Your task to perform on an android device: read, delete, or share a saved page in the chrome app Image 0: 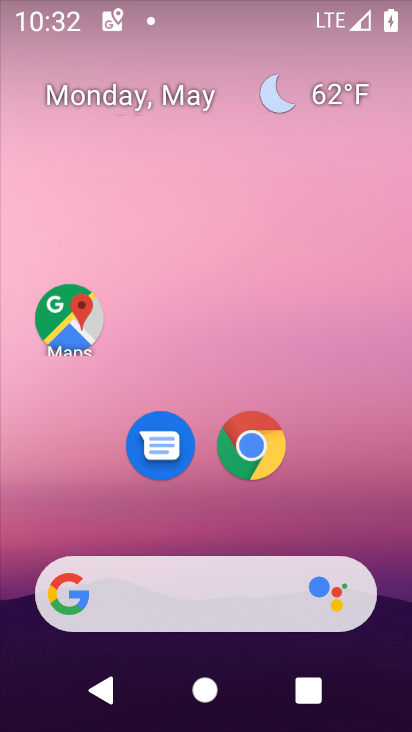
Step 0: drag from (398, 637) to (249, 2)
Your task to perform on an android device: read, delete, or share a saved page in the chrome app Image 1: 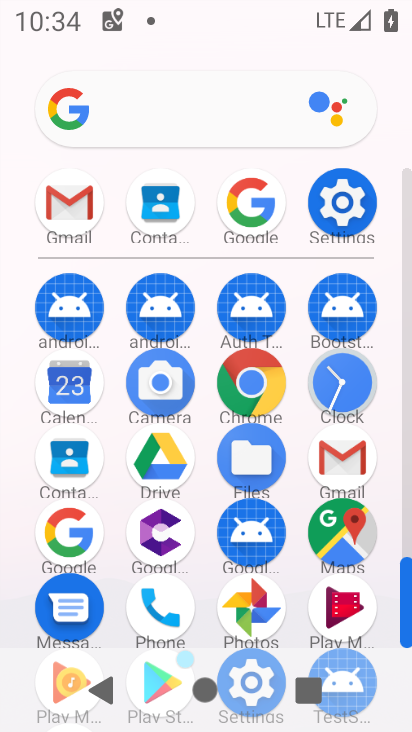
Step 1: click (265, 370)
Your task to perform on an android device: read, delete, or share a saved page in the chrome app Image 2: 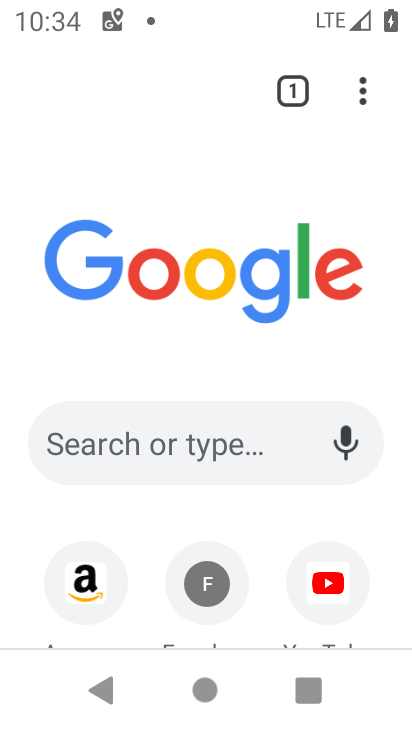
Step 2: task complete